Your task to perform on an android device: turn off location Image 0: 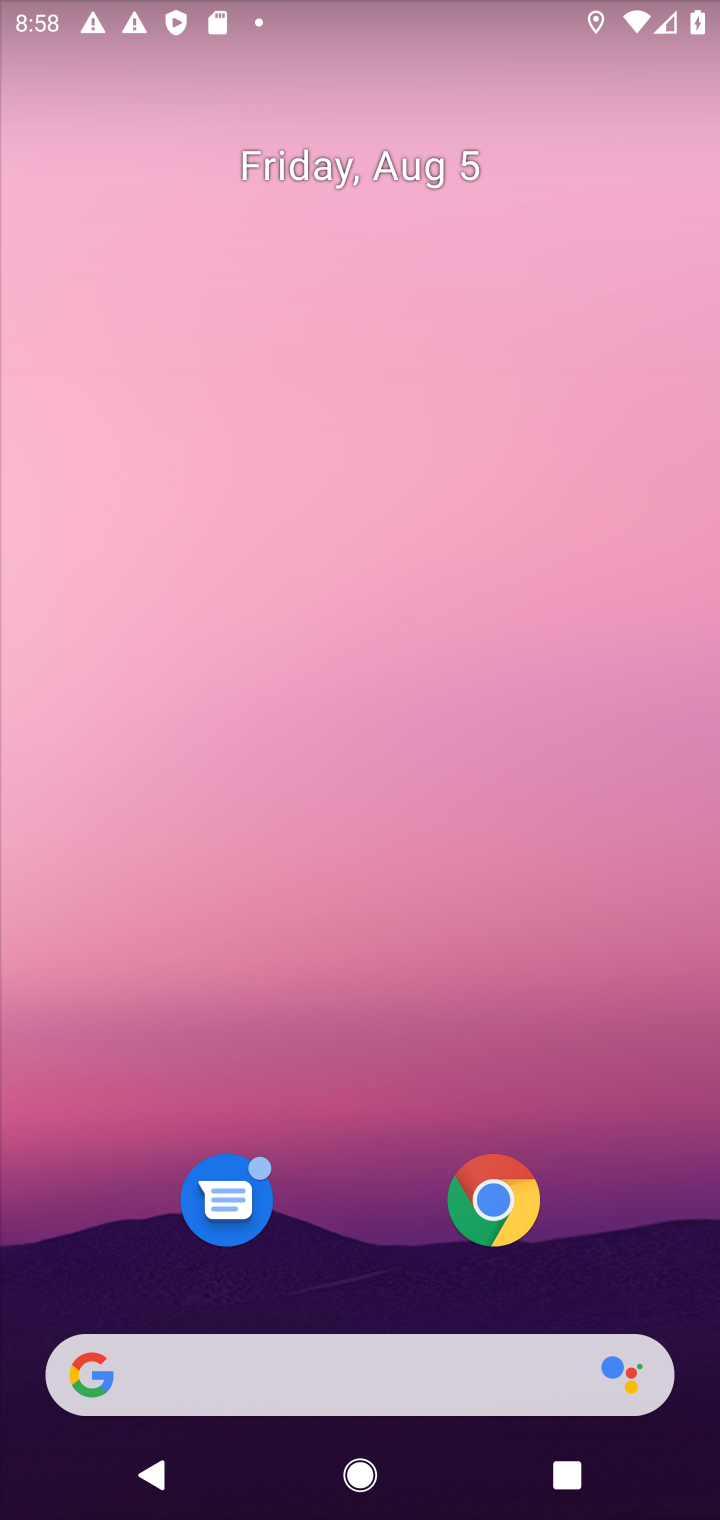
Step 0: drag from (617, 1221) to (610, 155)
Your task to perform on an android device: turn off location Image 1: 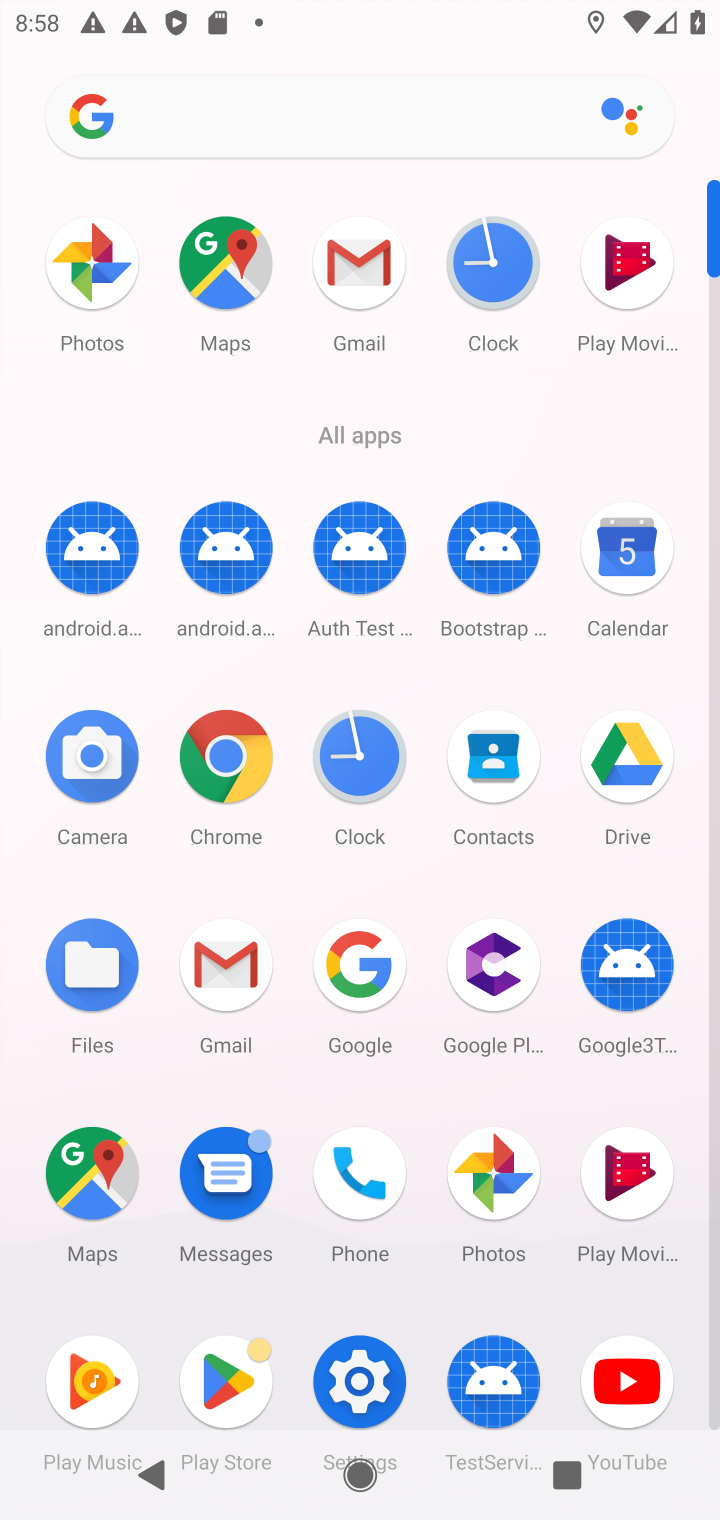
Step 1: click (353, 1365)
Your task to perform on an android device: turn off location Image 2: 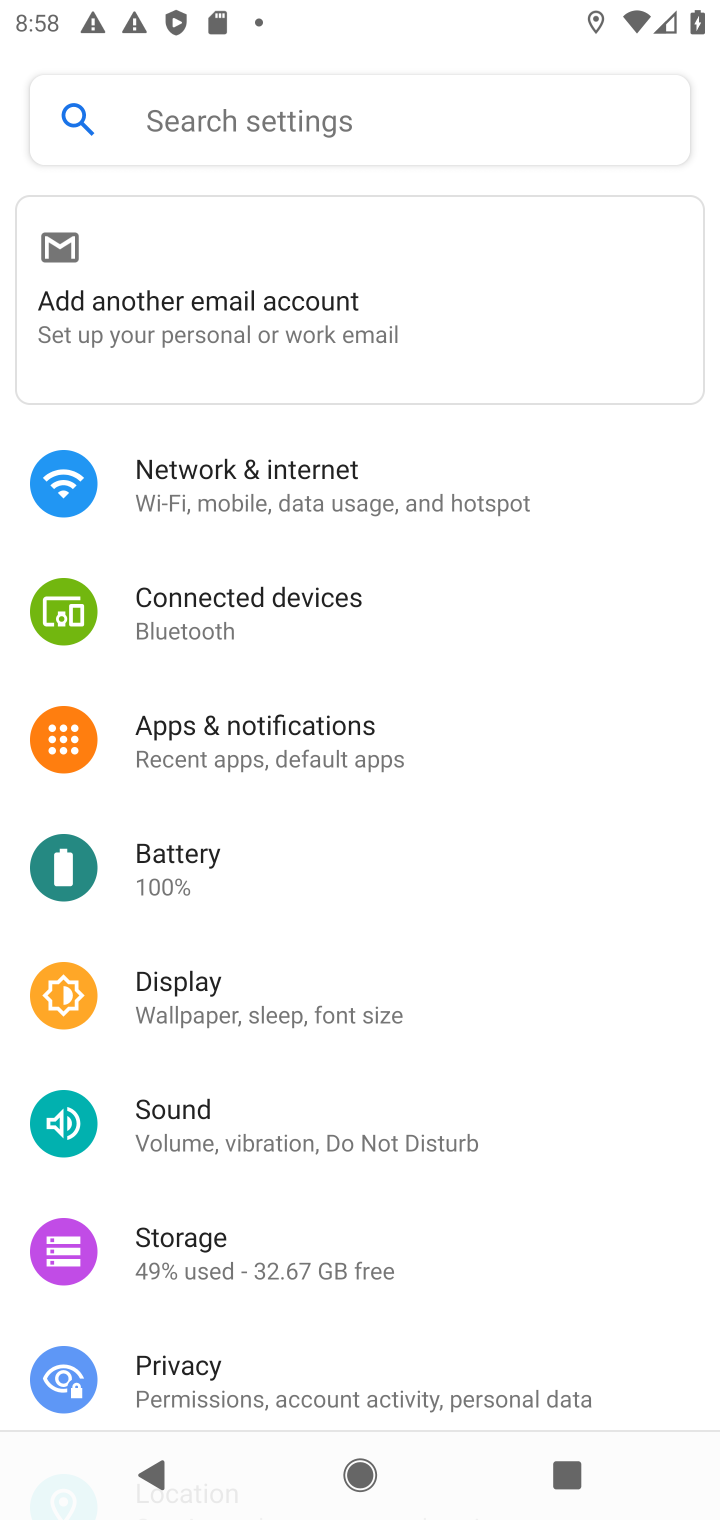
Step 2: drag from (407, 1153) to (474, 608)
Your task to perform on an android device: turn off location Image 3: 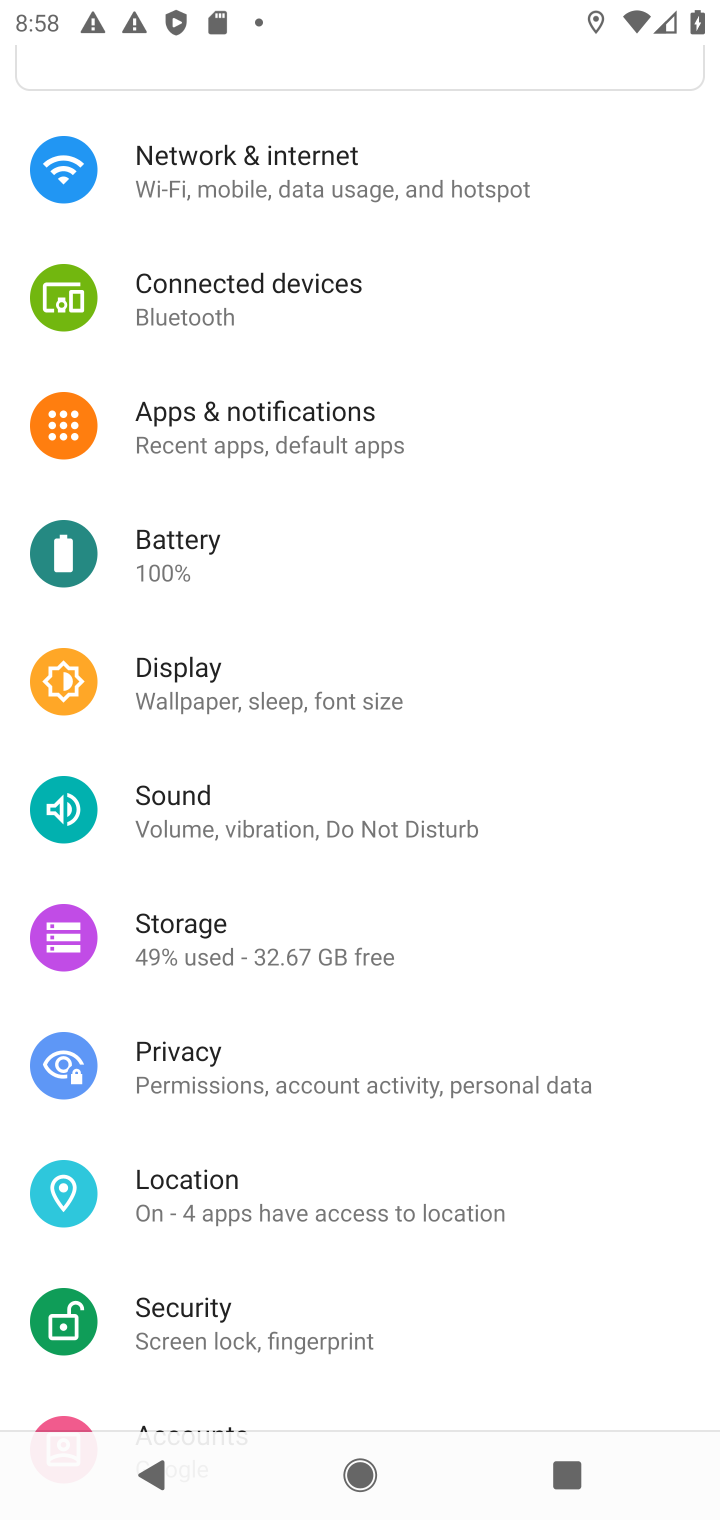
Step 3: drag from (288, 1282) to (498, 469)
Your task to perform on an android device: turn off location Image 4: 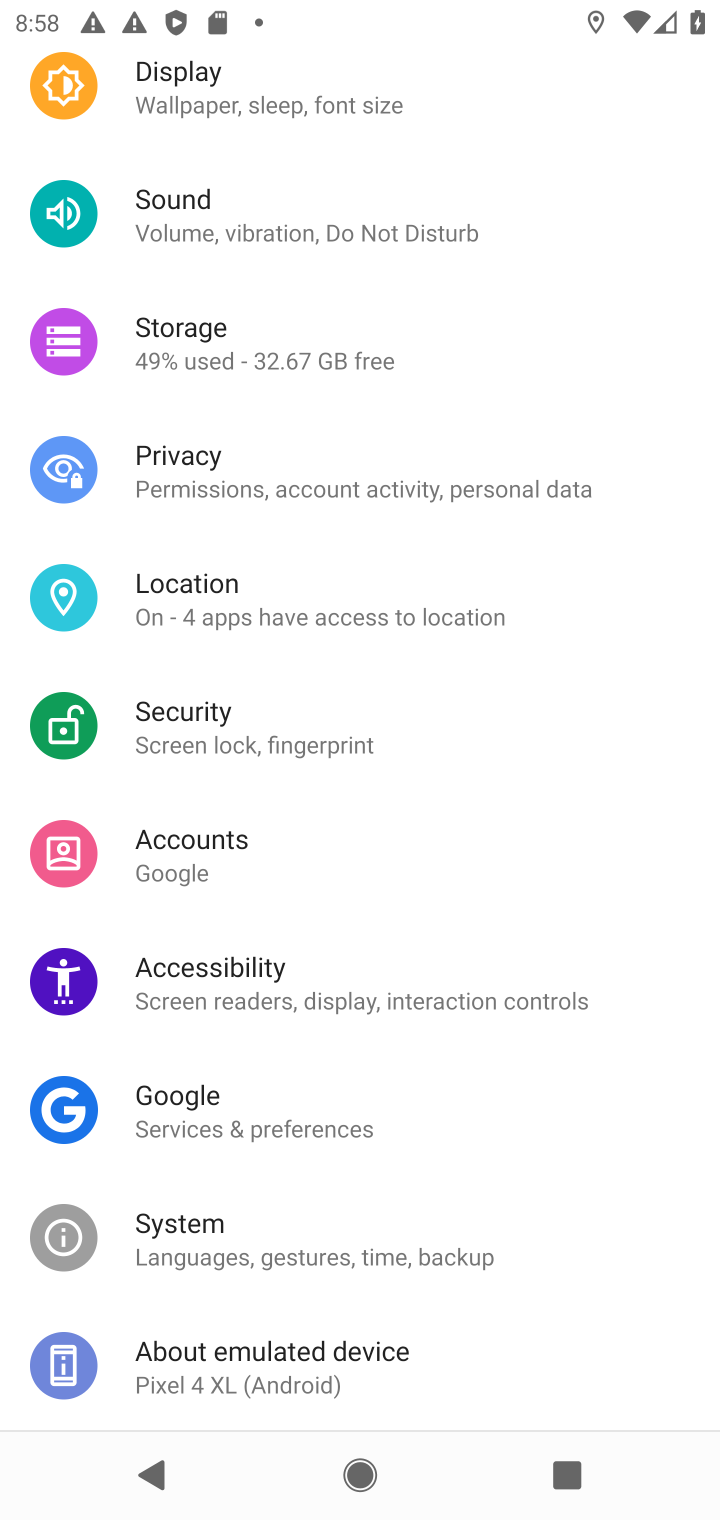
Step 4: click (235, 604)
Your task to perform on an android device: turn off location Image 5: 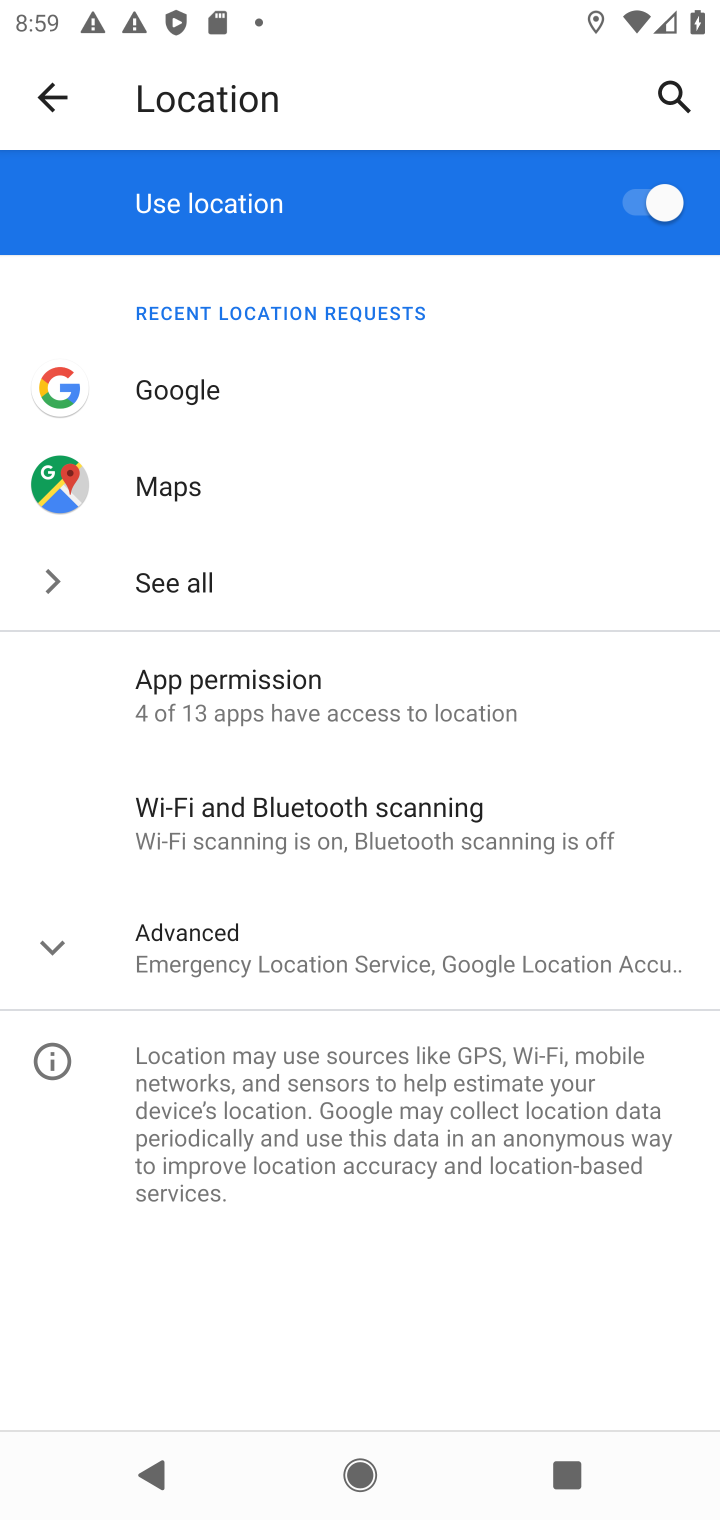
Step 5: click (619, 194)
Your task to perform on an android device: turn off location Image 6: 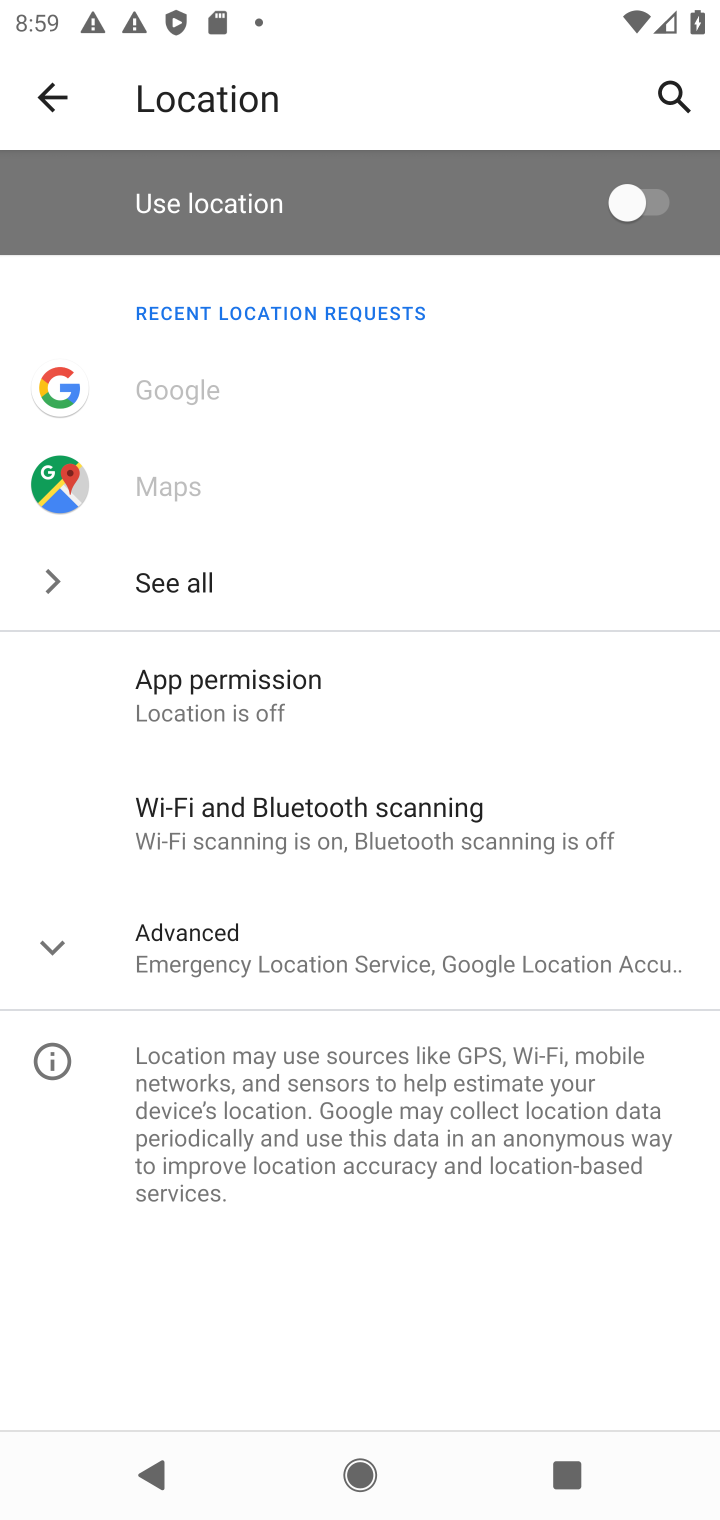
Step 6: task complete